Your task to perform on an android device: What's the weather? Image 0: 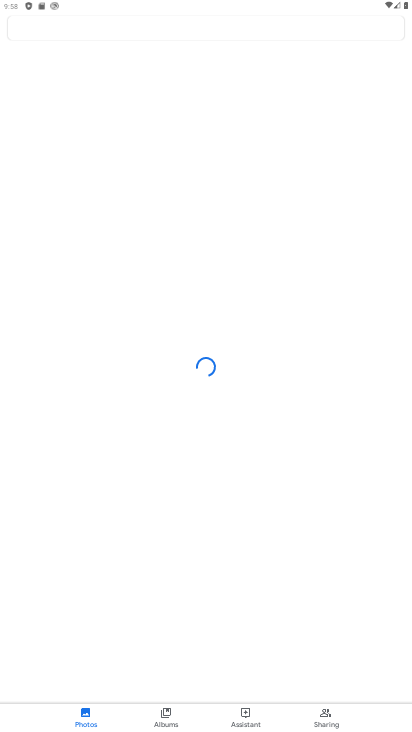
Step 0: press home button
Your task to perform on an android device: What's the weather? Image 1: 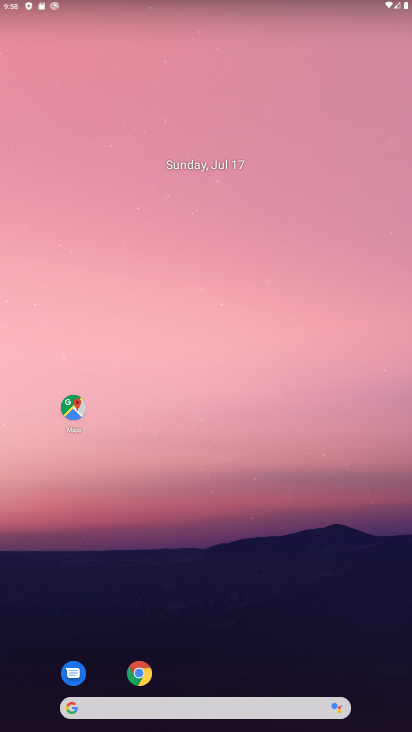
Step 1: drag from (232, 684) to (260, 116)
Your task to perform on an android device: What's the weather? Image 2: 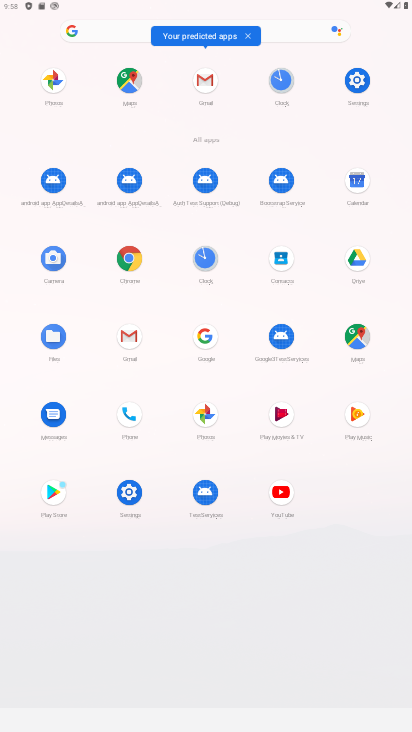
Step 2: click (208, 330)
Your task to perform on an android device: What's the weather? Image 3: 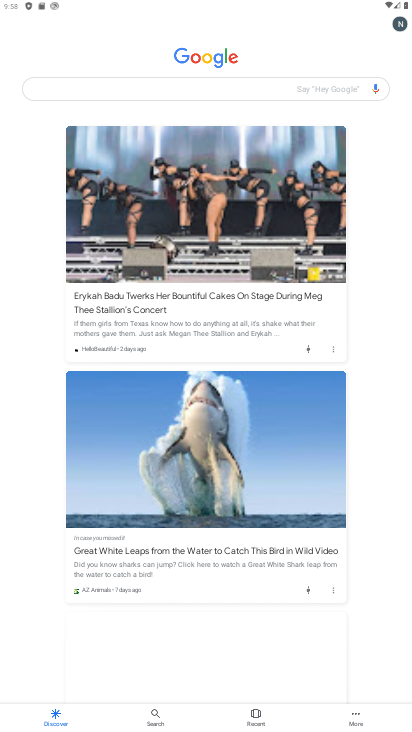
Step 3: click (172, 87)
Your task to perform on an android device: What's the weather? Image 4: 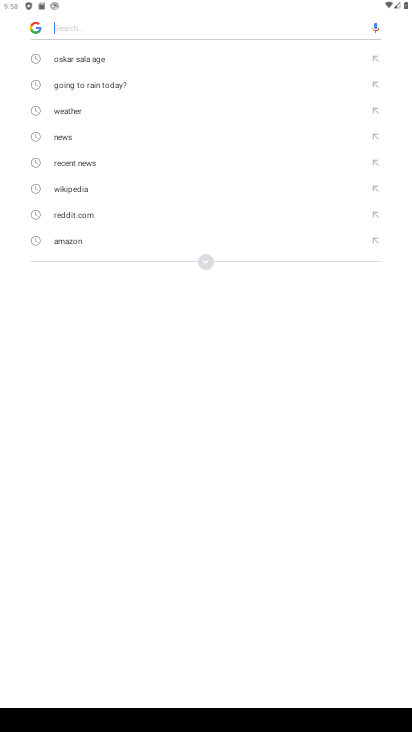
Step 4: type "What's the weather?"
Your task to perform on an android device: What's the weather? Image 5: 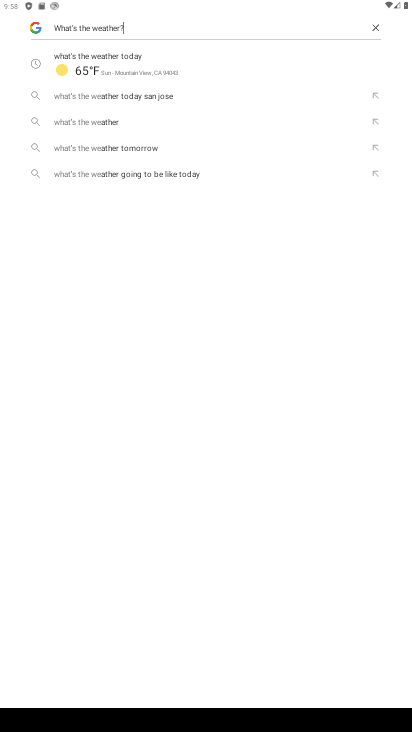
Step 5: type ""
Your task to perform on an android device: What's the weather? Image 6: 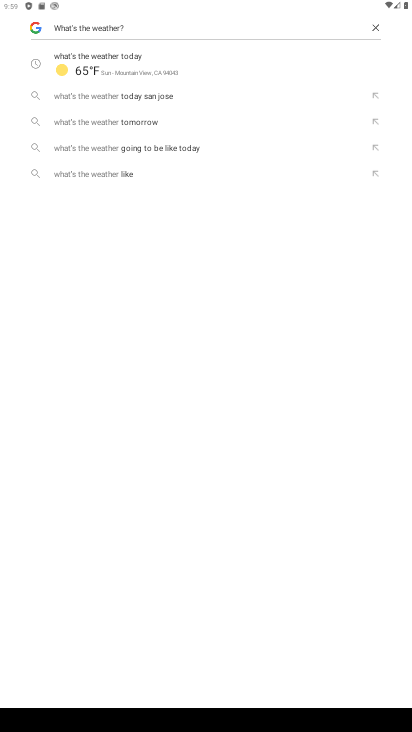
Step 6: click (173, 70)
Your task to perform on an android device: What's the weather? Image 7: 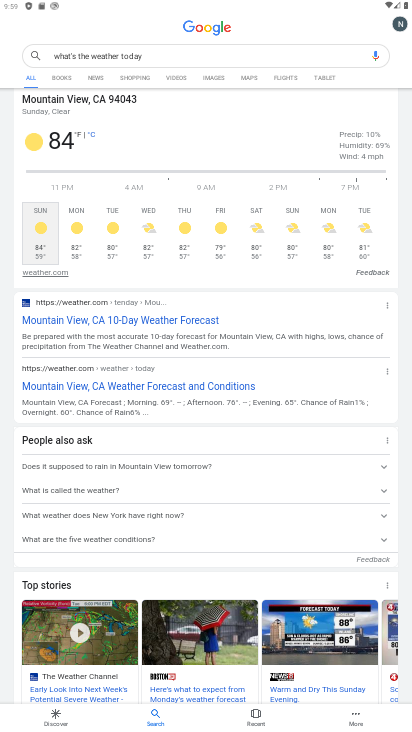
Step 7: task complete